Your task to perform on an android device: find photos in the google photos app Image 0: 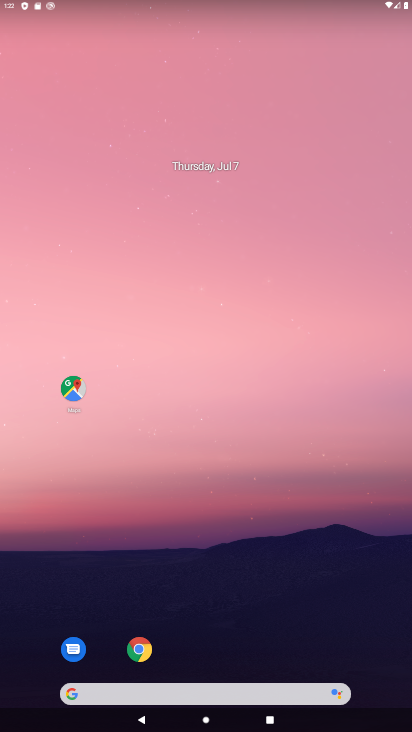
Step 0: drag from (28, 700) to (327, 114)
Your task to perform on an android device: find photos in the google photos app Image 1: 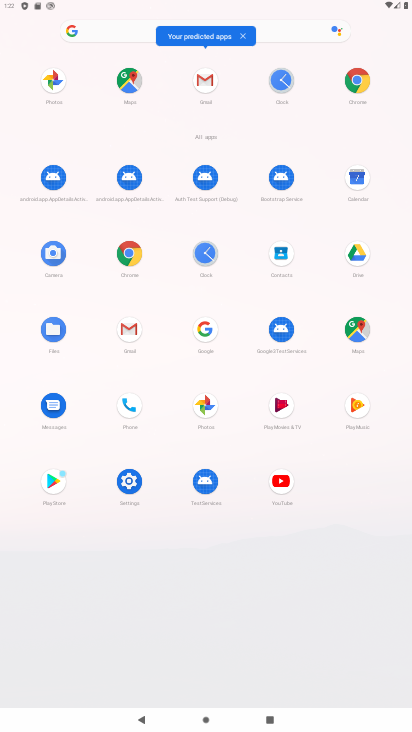
Step 1: click (207, 411)
Your task to perform on an android device: find photos in the google photos app Image 2: 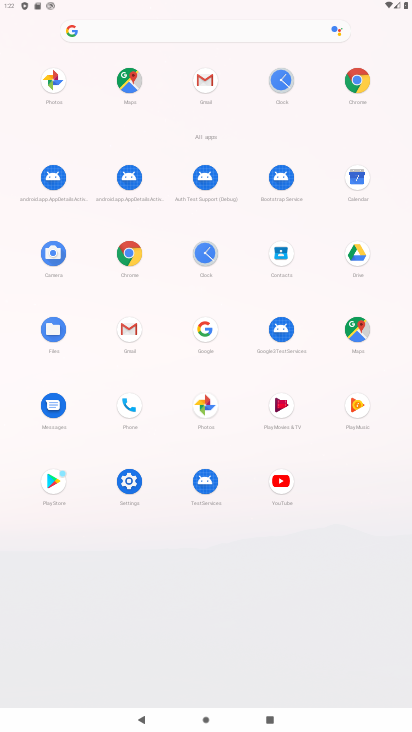
Step 2: click (207, 411)
Your task to perform on an android device: find photos in the google photos app Image 3: 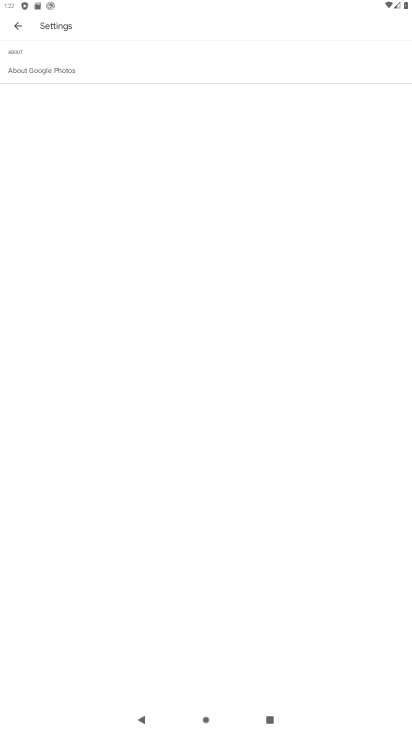
Step 3: click (14, 16)
Your task to perform on an android device: find photos in the google photos app Image 4: 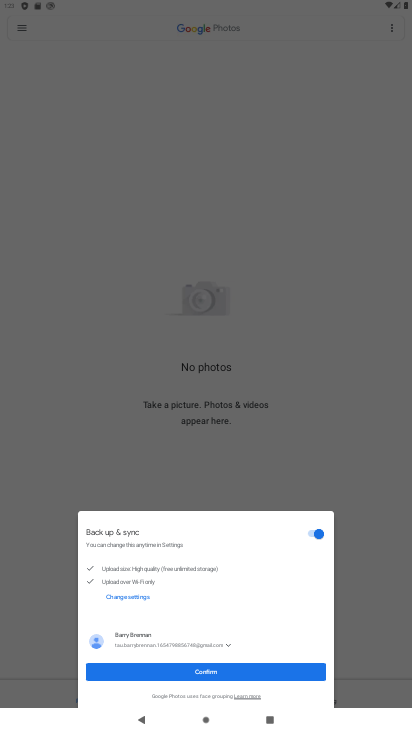
Step 4: task complete